Your task to perform on an android device: turn off airplane mode Image 0: 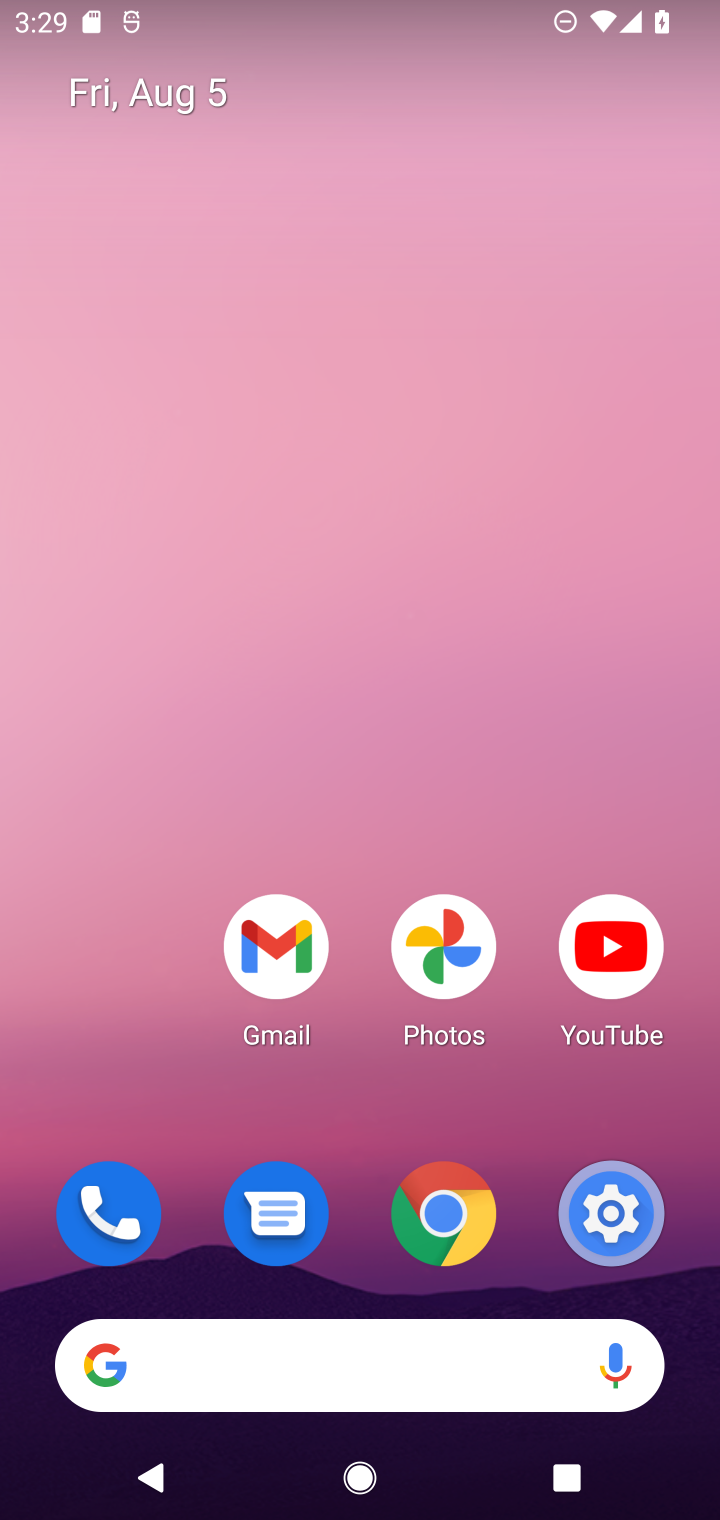
Step 0: click (634, 1226)
Your task to perform on an android device: turn off airplane mode Image 1: 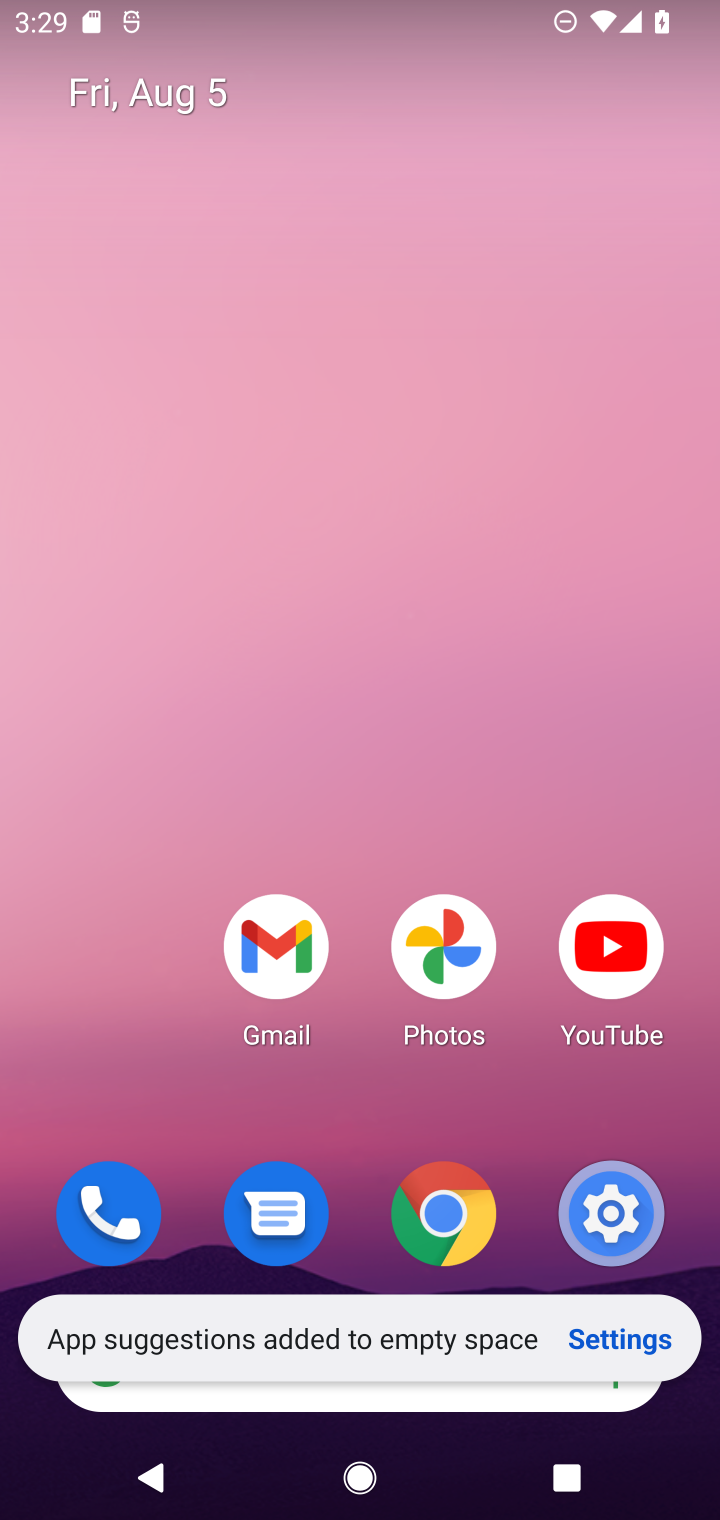
Step 1: click (628, 1213)
Your task to perform on an android device: turn off airplane mode Image 2: 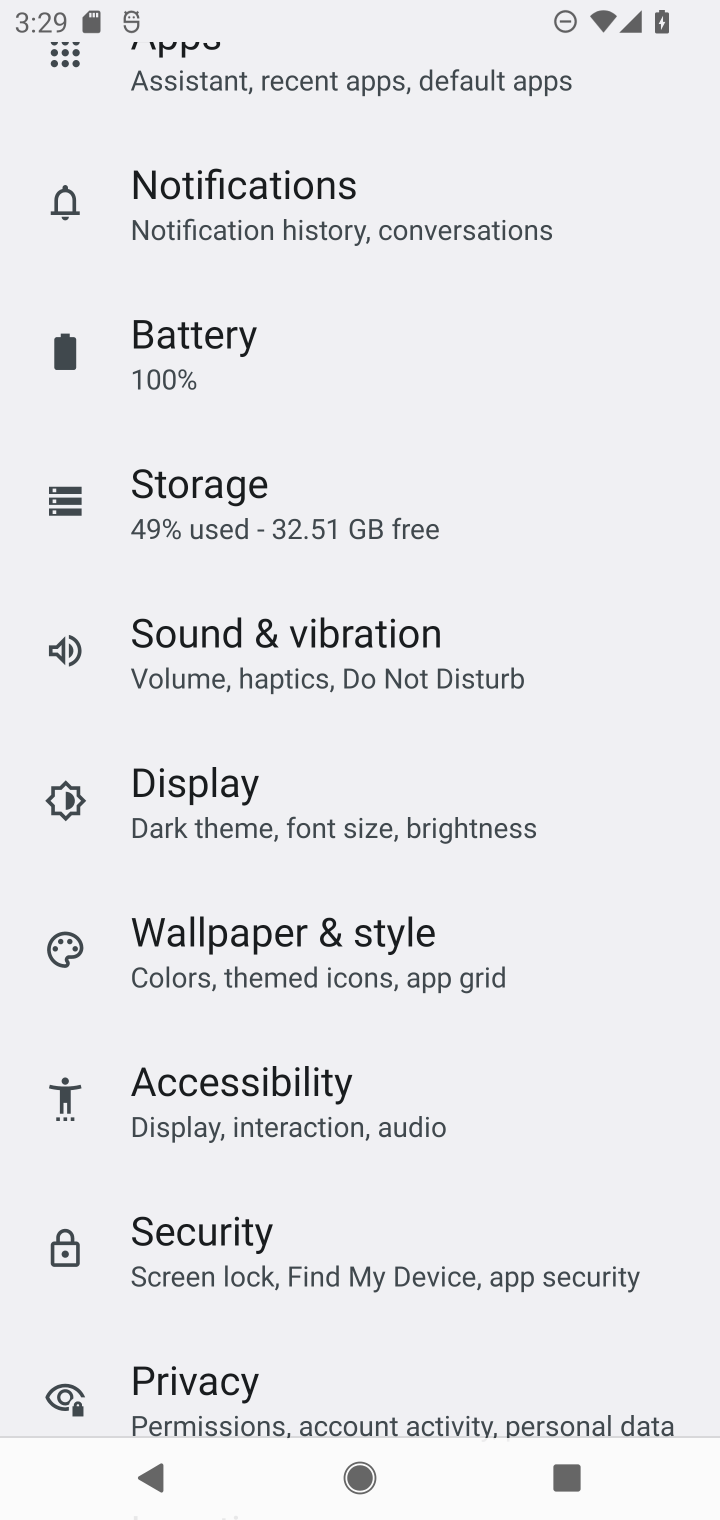
Step 2: drag from (453, 280) to (387, 1023)
Your task to perform on an android device: turn off airplane mode Image 3: 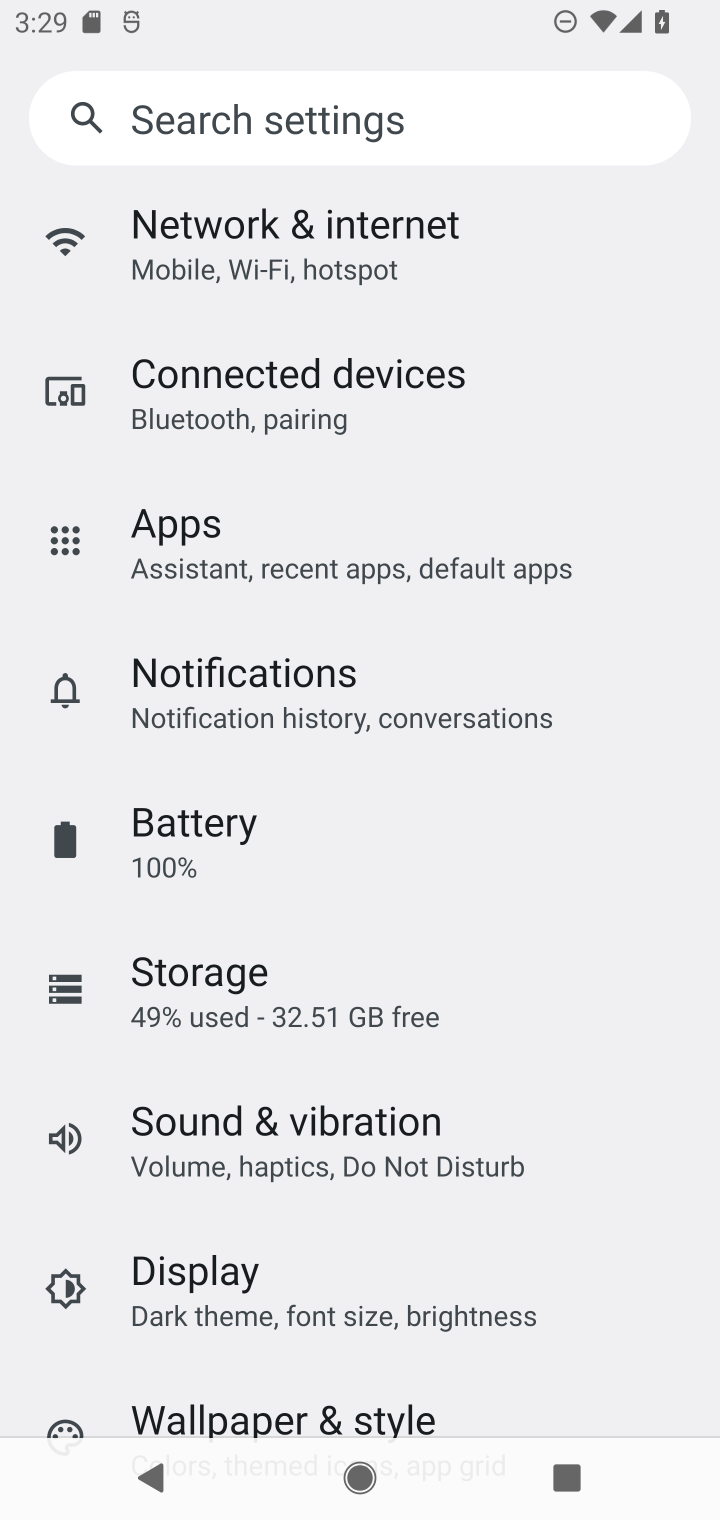
Step 3: click (367, 249)
Your task to perform on an android device: turn off airplane mode Image 4: 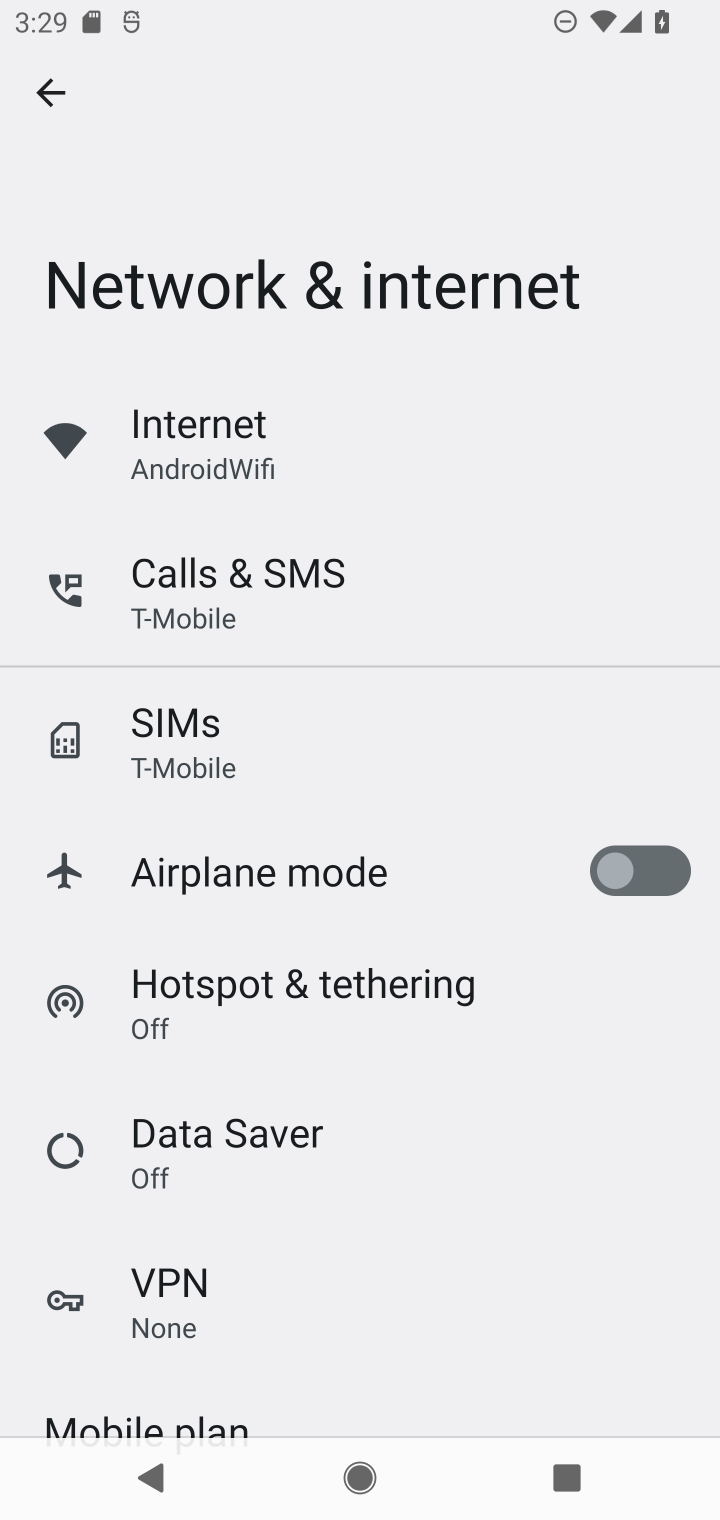
Step 4: task complete